Your task to perform on an android device: Open Google Chrome and open the bookmarks view Image 0: 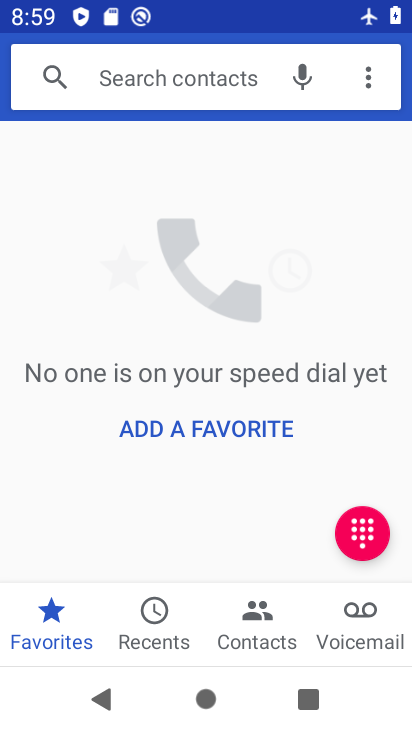
Step 0: press home button
Your task to perform on an android device: Open Google Chrome and open the bookmarks view Image 1: 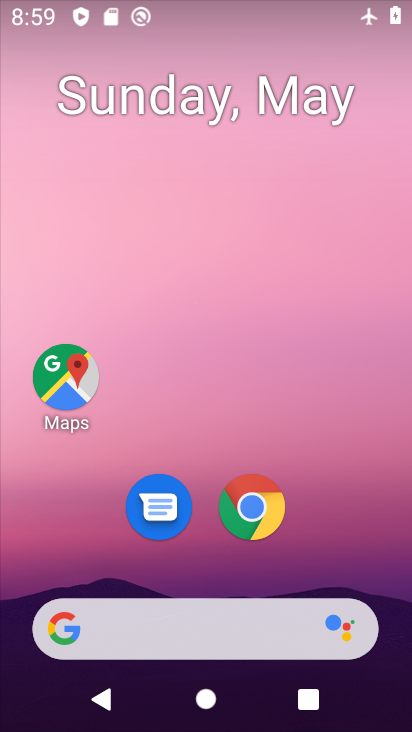
Step 1: click (268, 523)
Your task to perform on an android device: Open Google Chrome and open the bookmarks view Image 2: 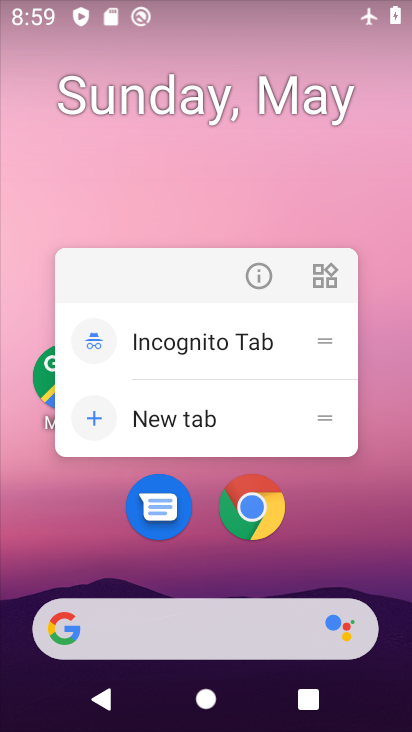
Step 2: click (250, 518)
Your task to perform on an android device: Open Google Chrome and open the bookmarks view Image 3: 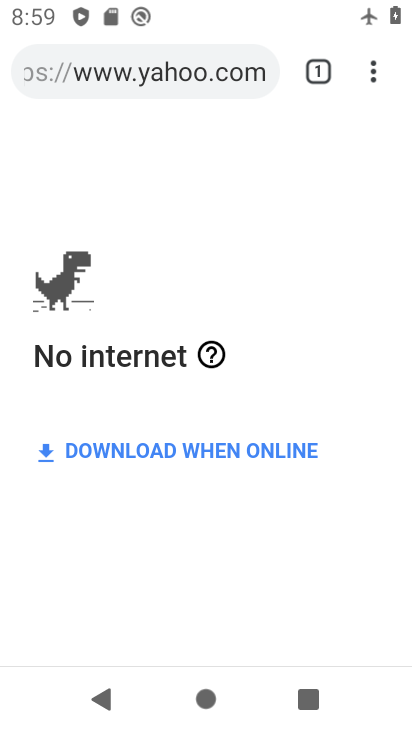
Step 3: click (372, 78)
Your task to perform on an android device: Open Google Chrome and open the bookmarks view Image 4: 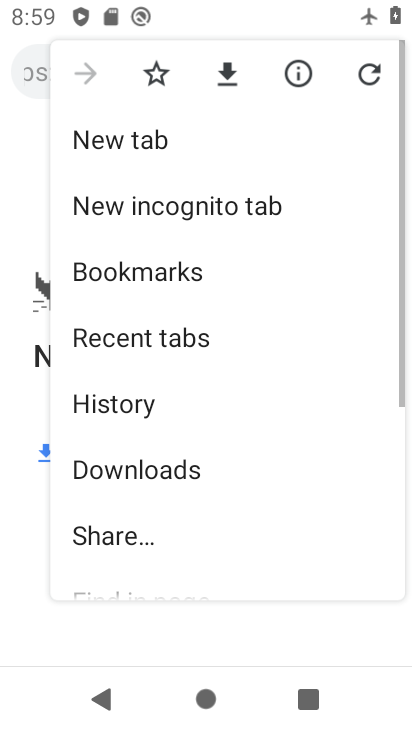
Step 4: click (158, 269)
Your task to perform on an android device: Open Google Chrome and open the bookmarks view Image 5: 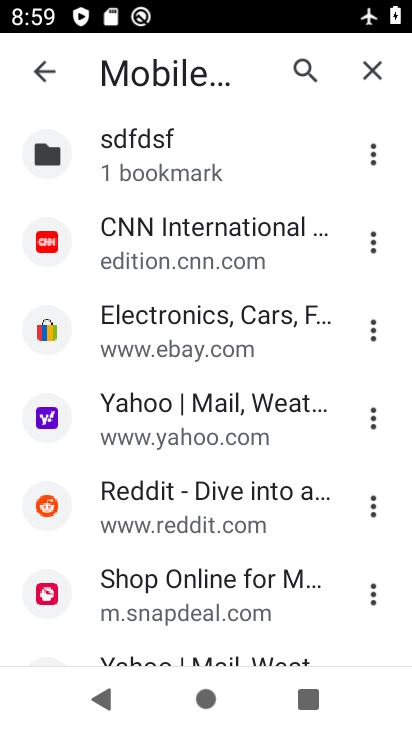
Step 5: task complete